Your task to perform on an android device: Show me popular games on the Play Store Image 0: 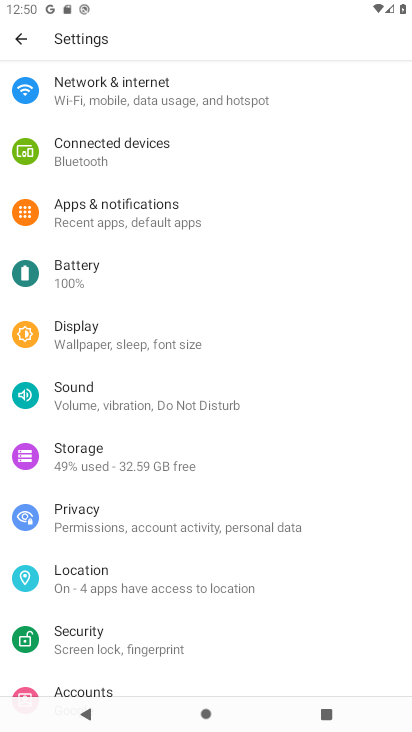
Step 0: press home button
Your task to perform on an android device: Show me popular games on the Play Store Image 1: 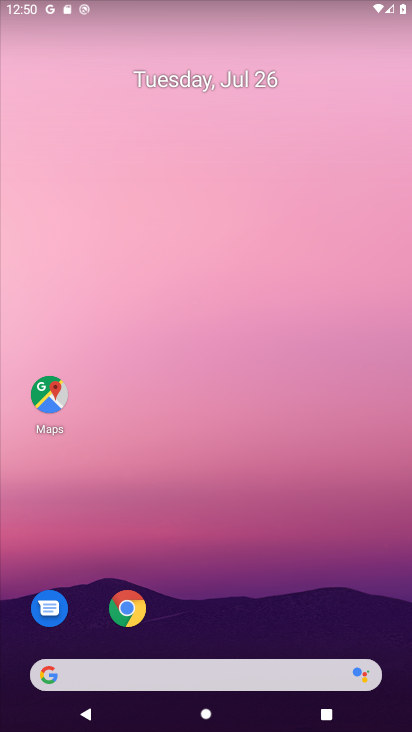
Step 1: drag from (204, 641) to (219, 47)
Your task to perform on an android device: Show me popular games on the Play Store Image 2: 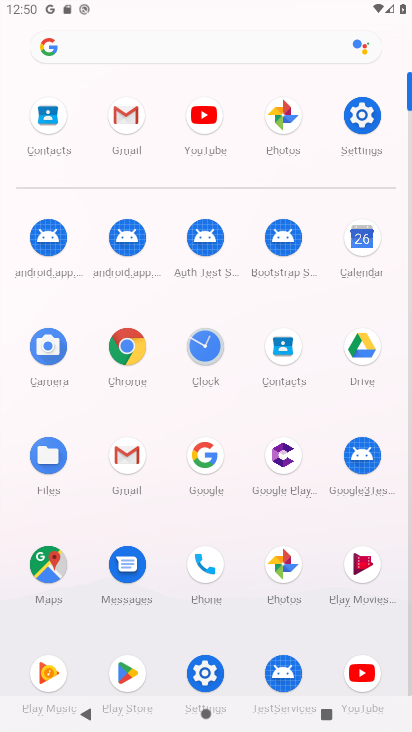
Step 2: click (116, 650)
Your task to perform on an android device: Show me popular games on the Play Store Image 3: 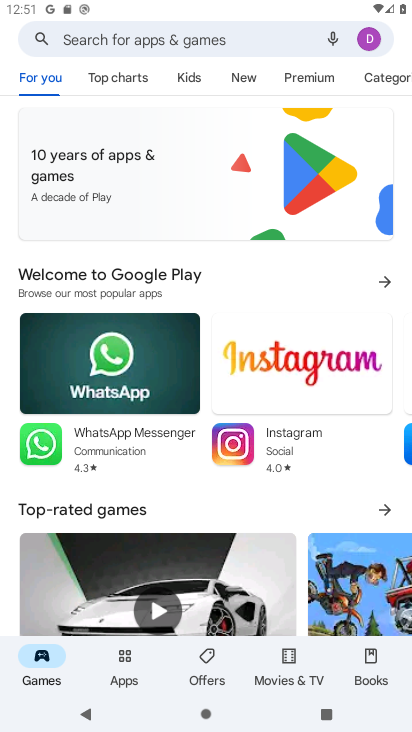
Step 3: click (149, 67)
Your task to perform on an android device: Show me popular games on the Play Store Image 4: 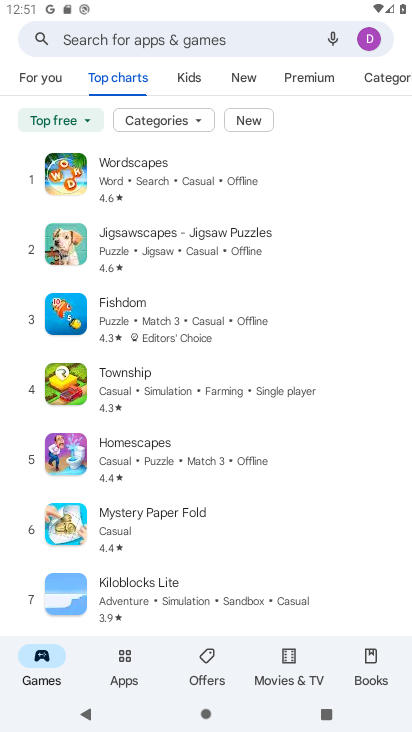
Step 4: task complete